Your task to perform on an android device: Search for Mexican restaurants on Maps Image 0: 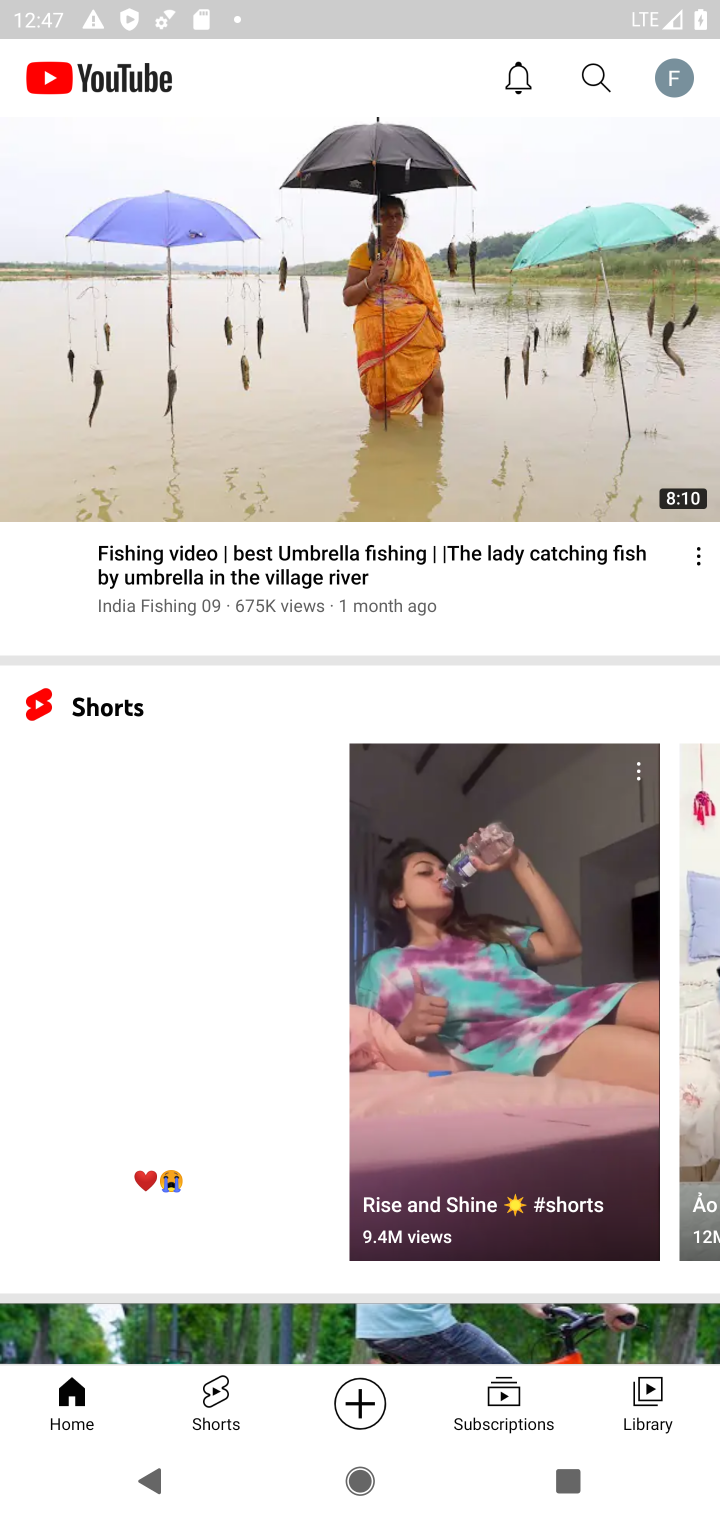
Step 0: press back button
Your task to perform on an android device: Search for Mexican restaurants on Maps Image 1: 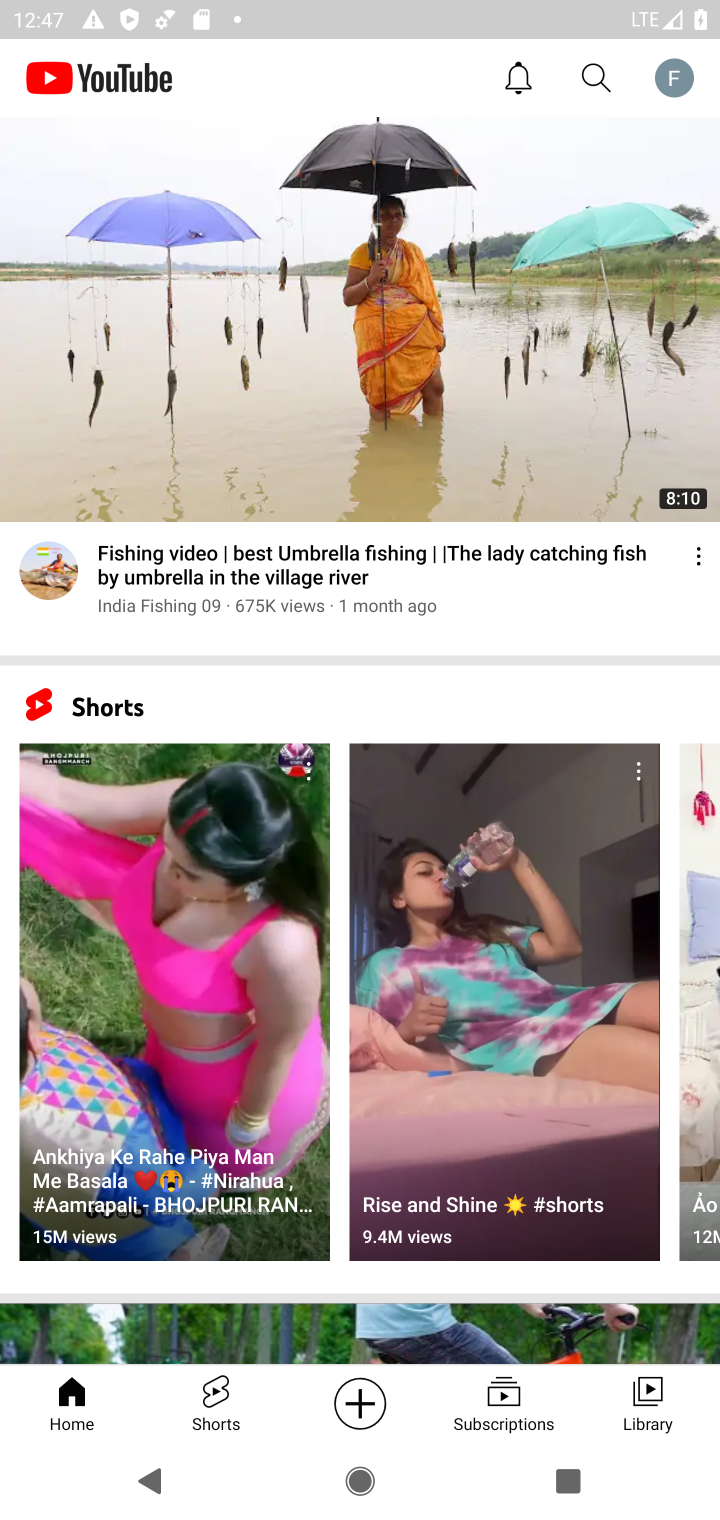
Step 1: press home button
Your task to perform on an android device: Search for Mexican restaurants on Maps Image 2: 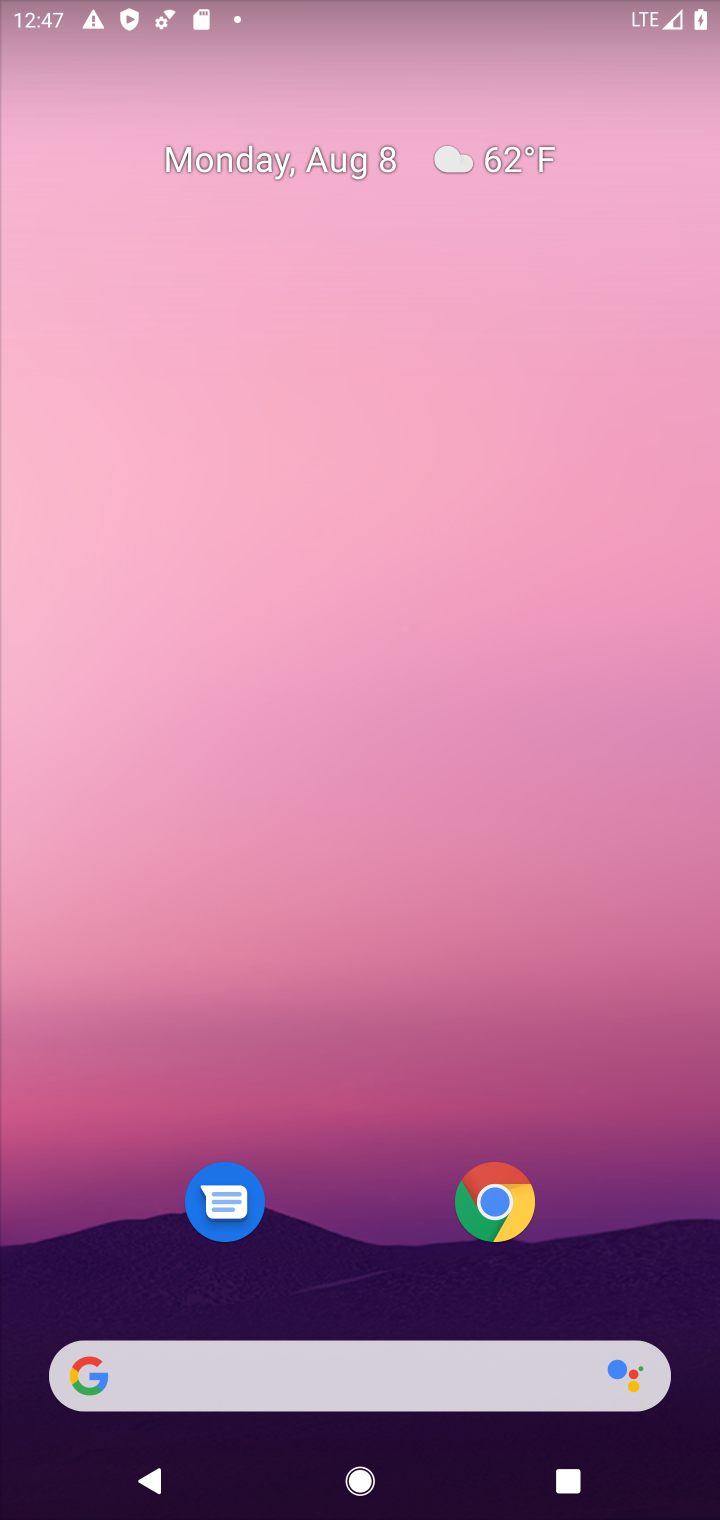
Step 2: drag from (331, 1043) to (331, 152)
Your task to perform on an android device: Search for Mexican restaurants on Maps Image 3: 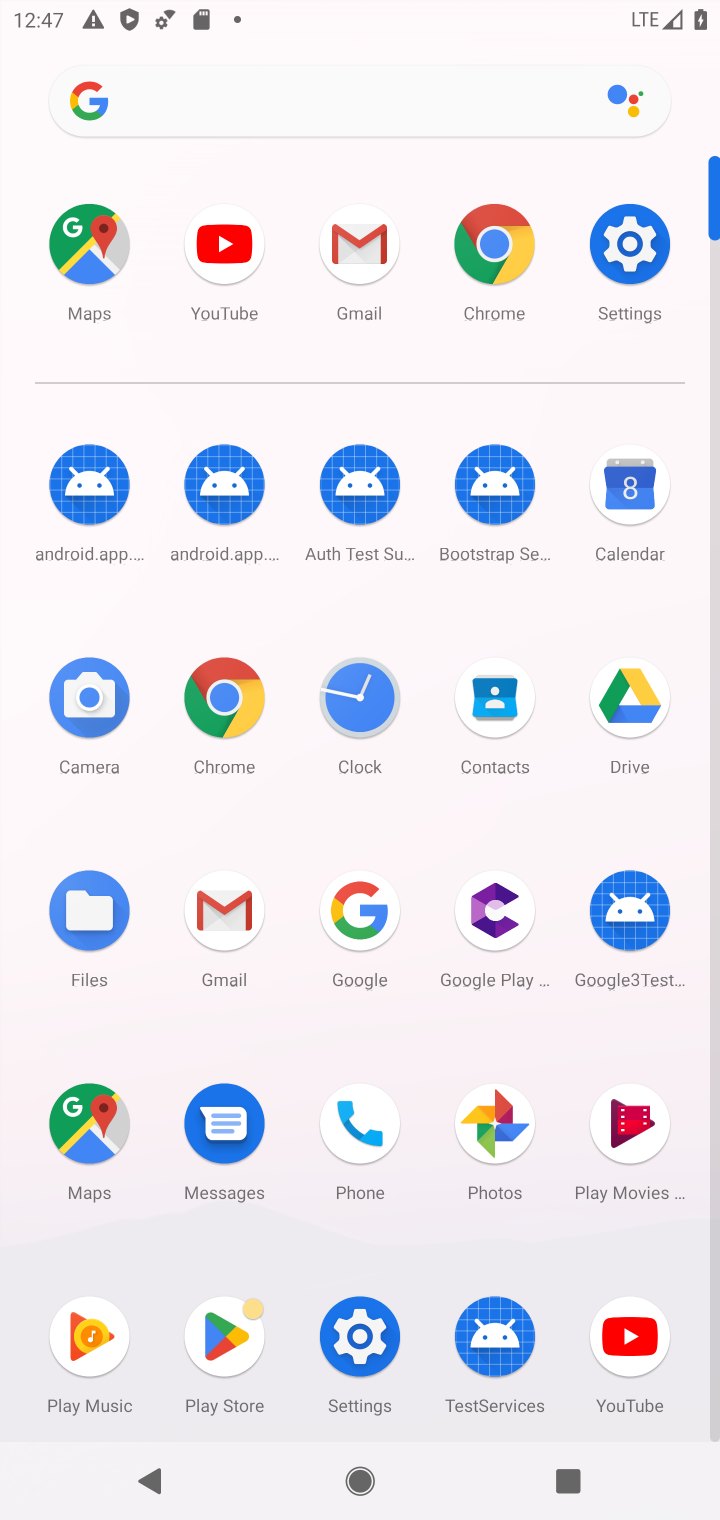
Step 3: click (90, 268)
Your task to perform on an android device: Search for Mexican restaurants on Maps Image 4: 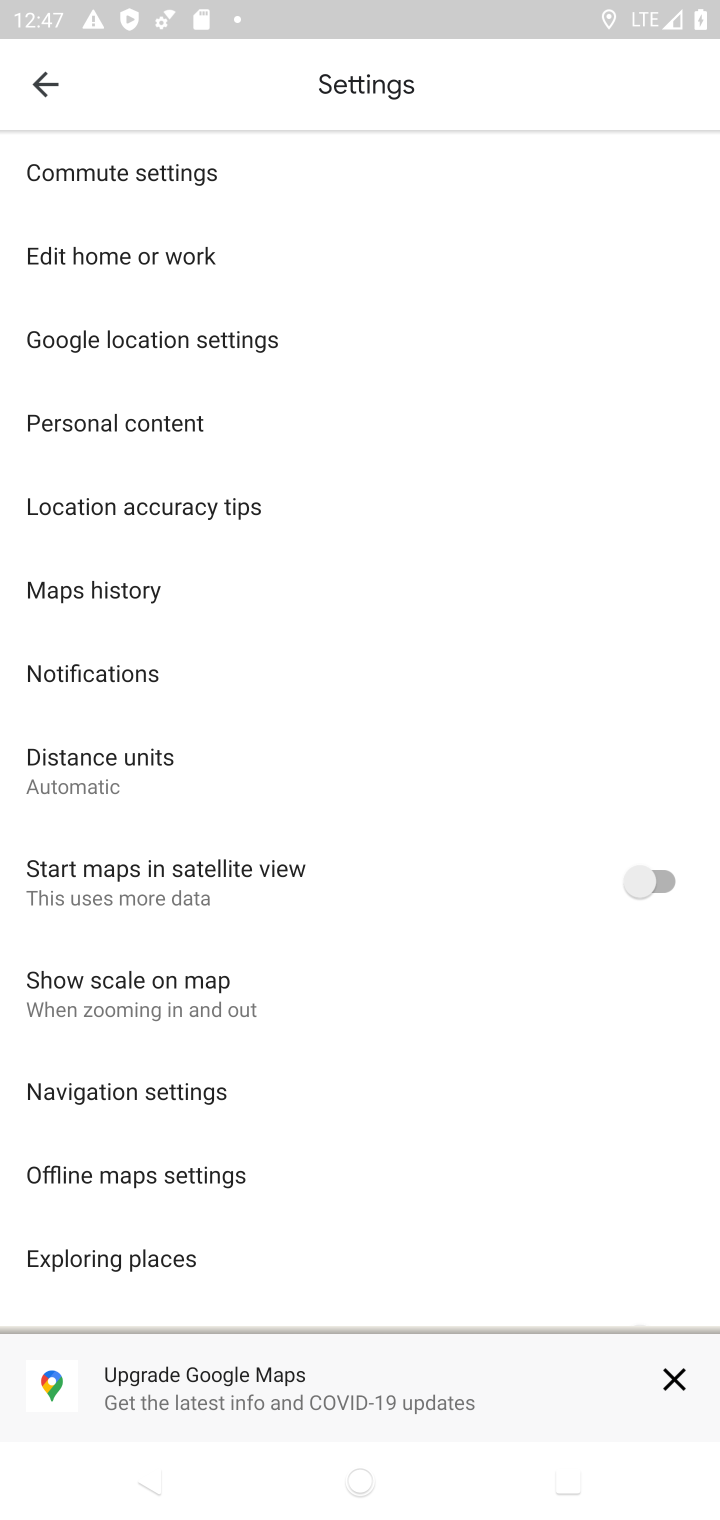
Step 4: click (39, 80)
Your task to perform on an android device: Search for Mexican restaurants on Maps Image 5: 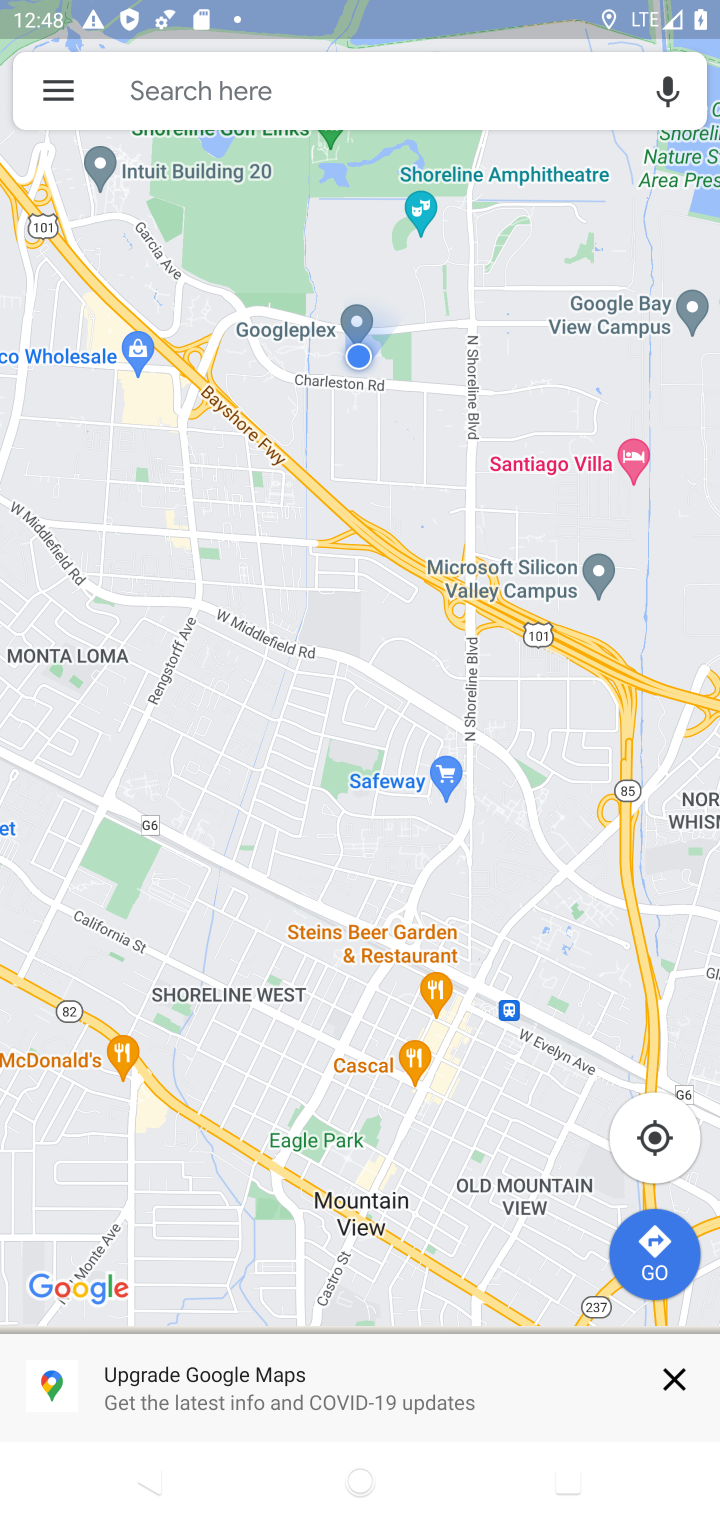
Step 5: click (218, 92)
Your task to perform on an android device: Search for Mexican restaurants on Maps Image 6: 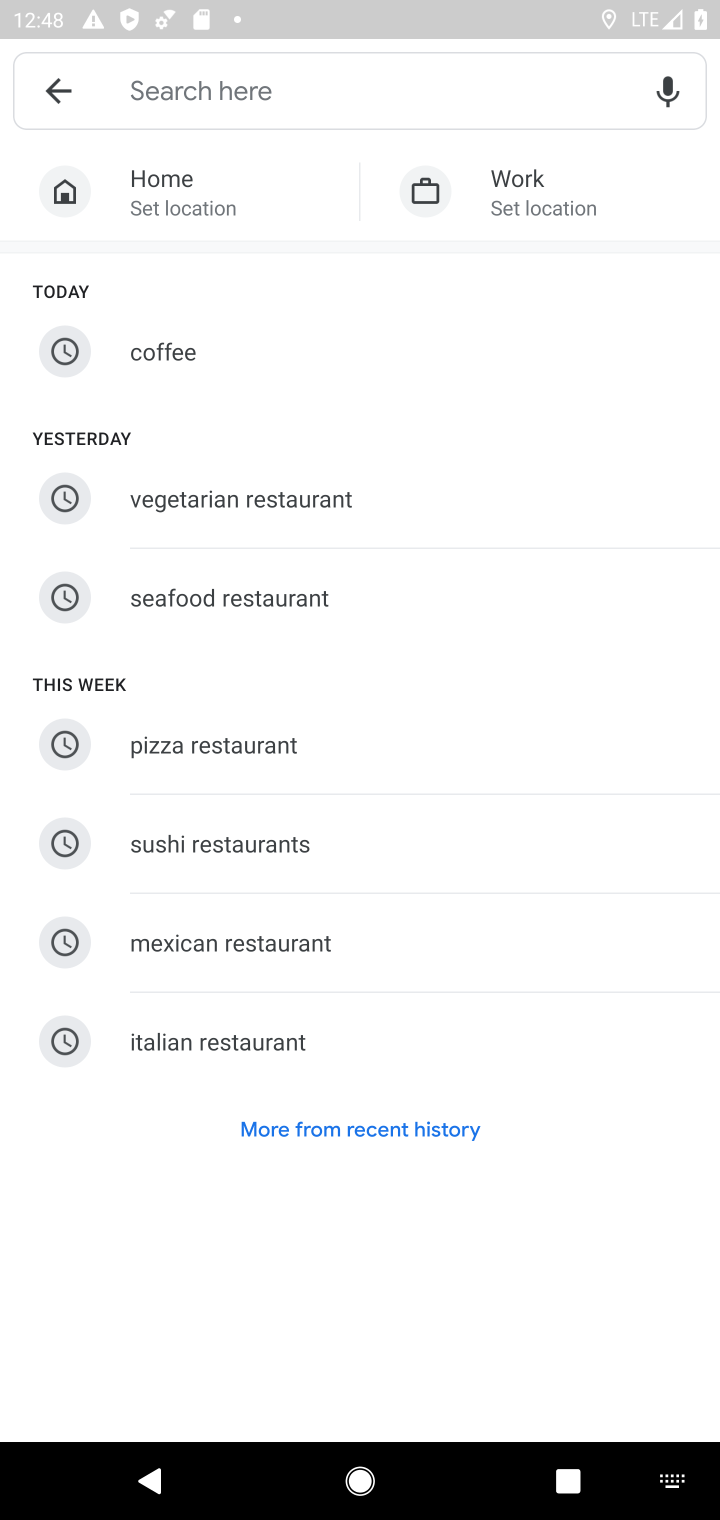
Step 6: type "Mexican restaurants "
Your task to perform on an android device: Search for Mexican restaurants on Maps Image 7: 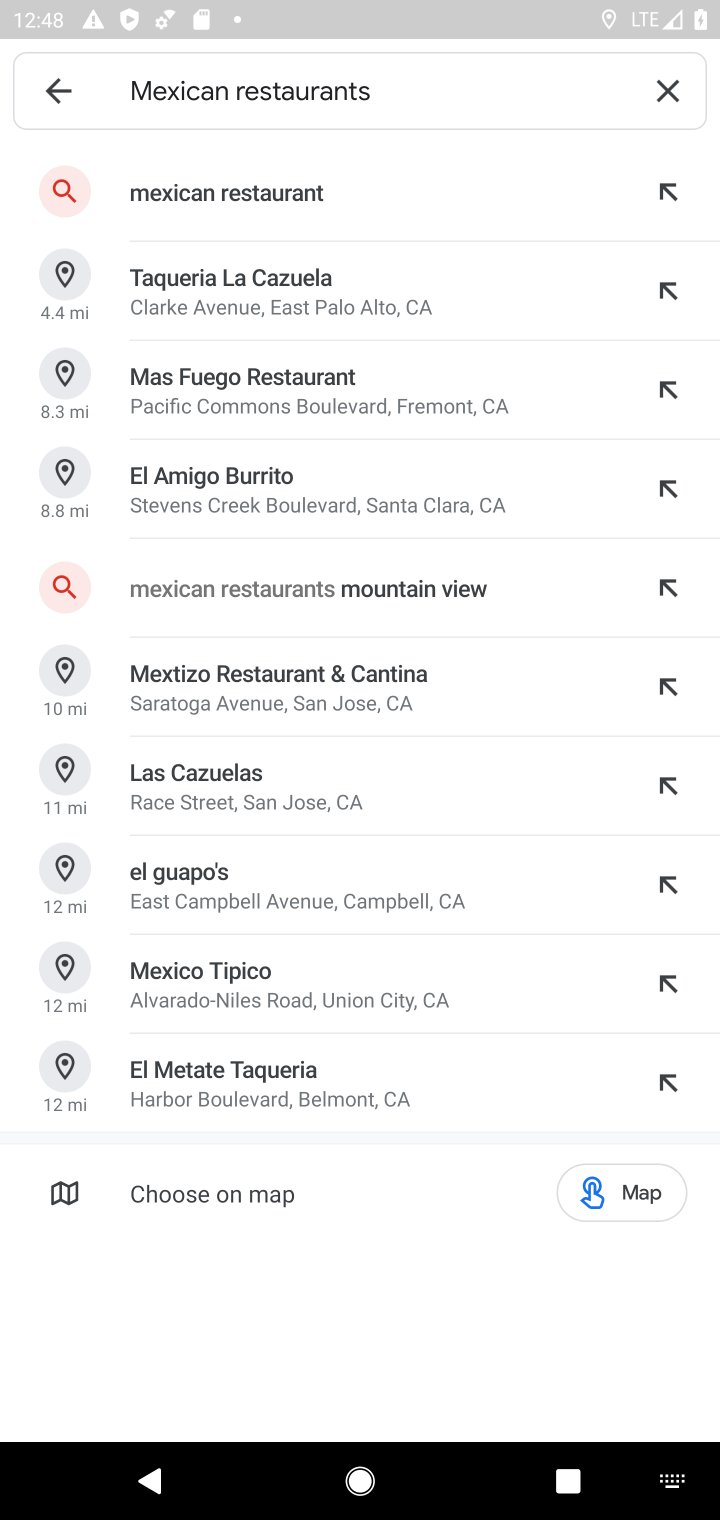
Step 7: click (236, 932)
Your task to perform on an android device: Search for Mexican restaurants on Maps Image 8: 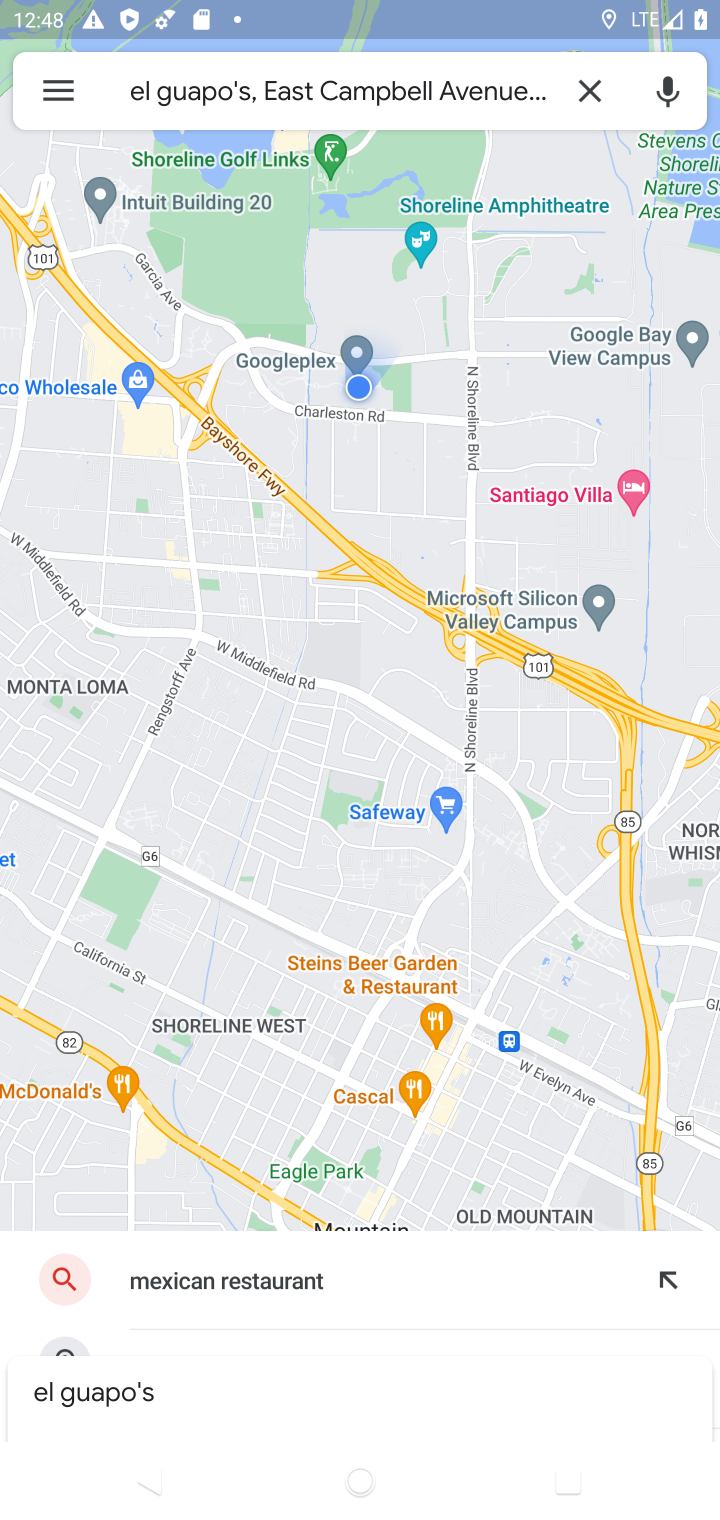
Step 8: click (264, 188)
Your task to perform on an android device: Search for Mexican restaurants on Maps Image 9: 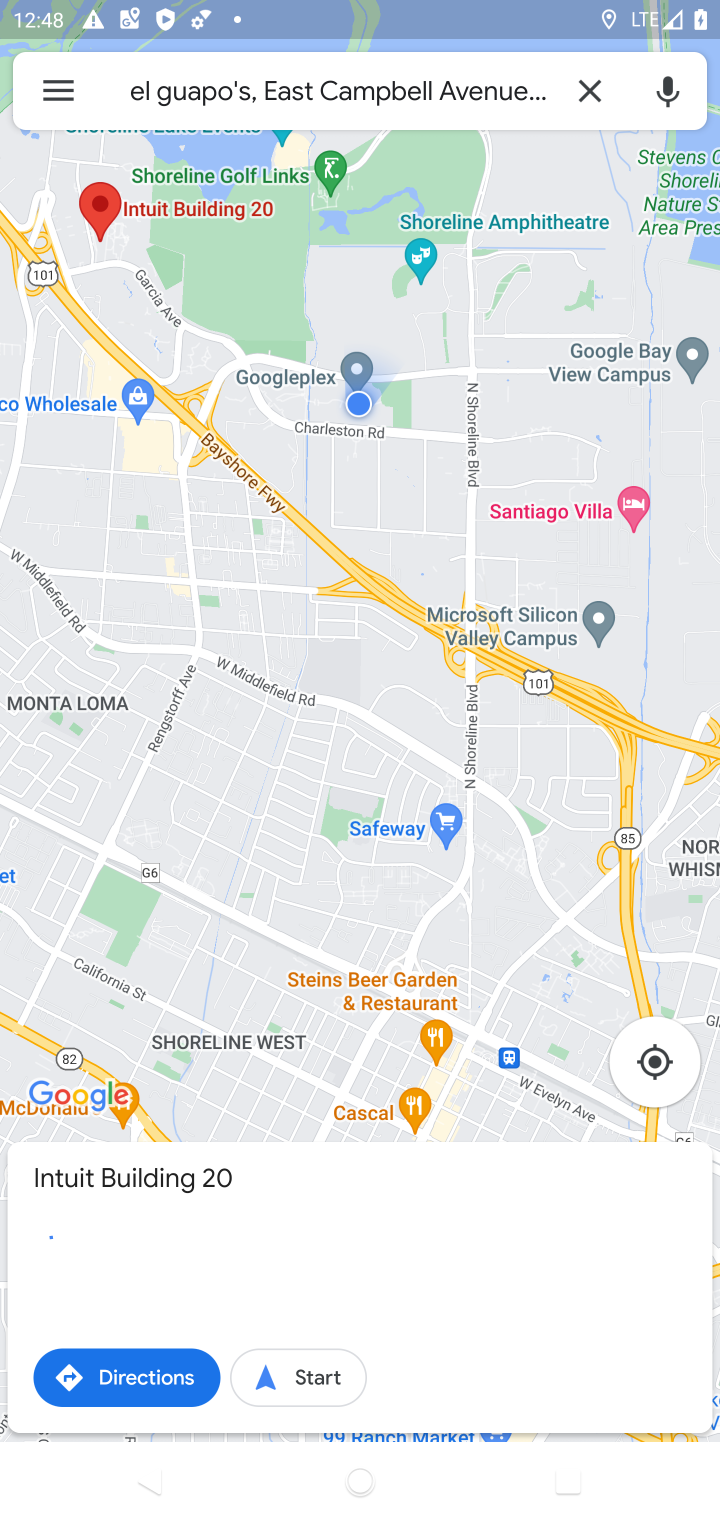
Step 9: click (585, 93)
Your task to perform on an android device: Search for Mexican restaurants on Maps Image 10: 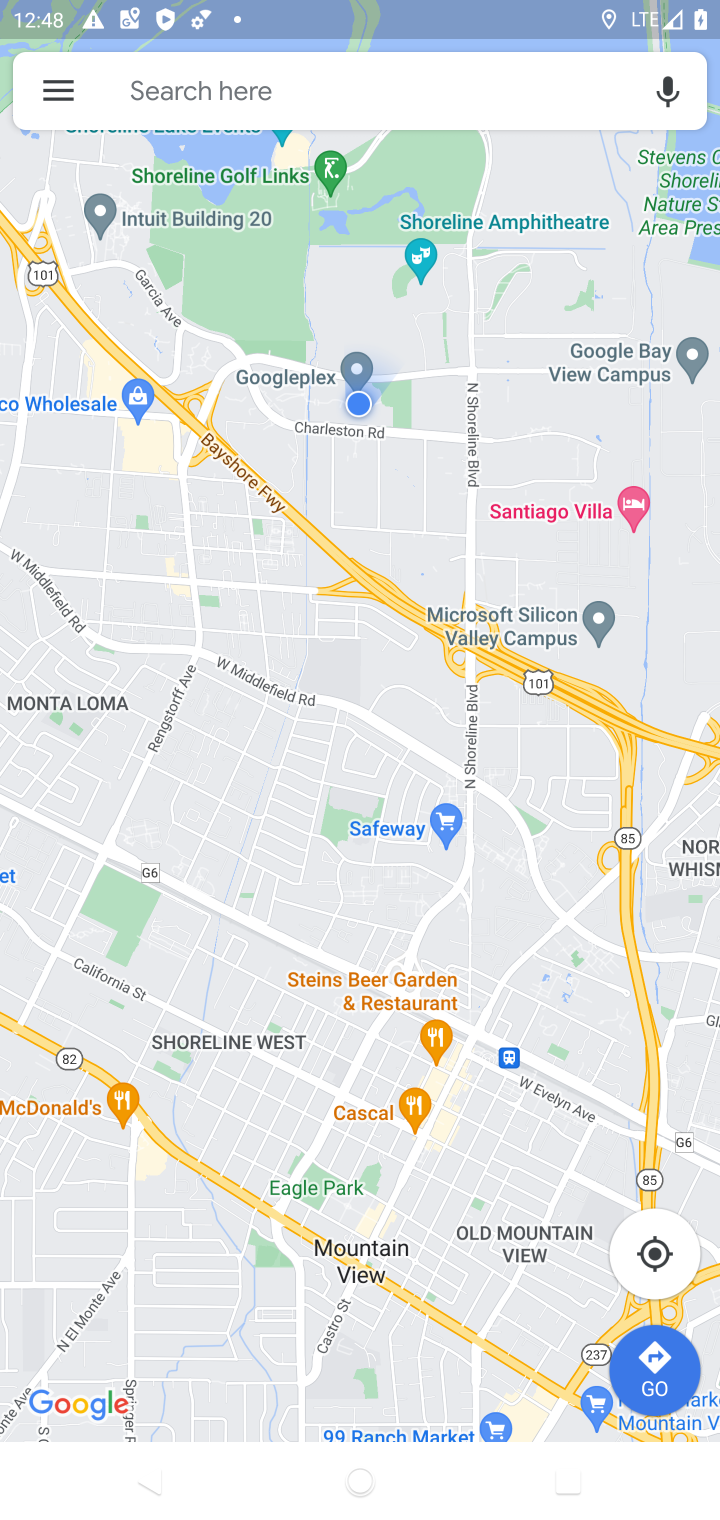
Step 10: click (245, 80)
Your task to perform on an android device: Search for Mexican restaurants on Maps Image 11: 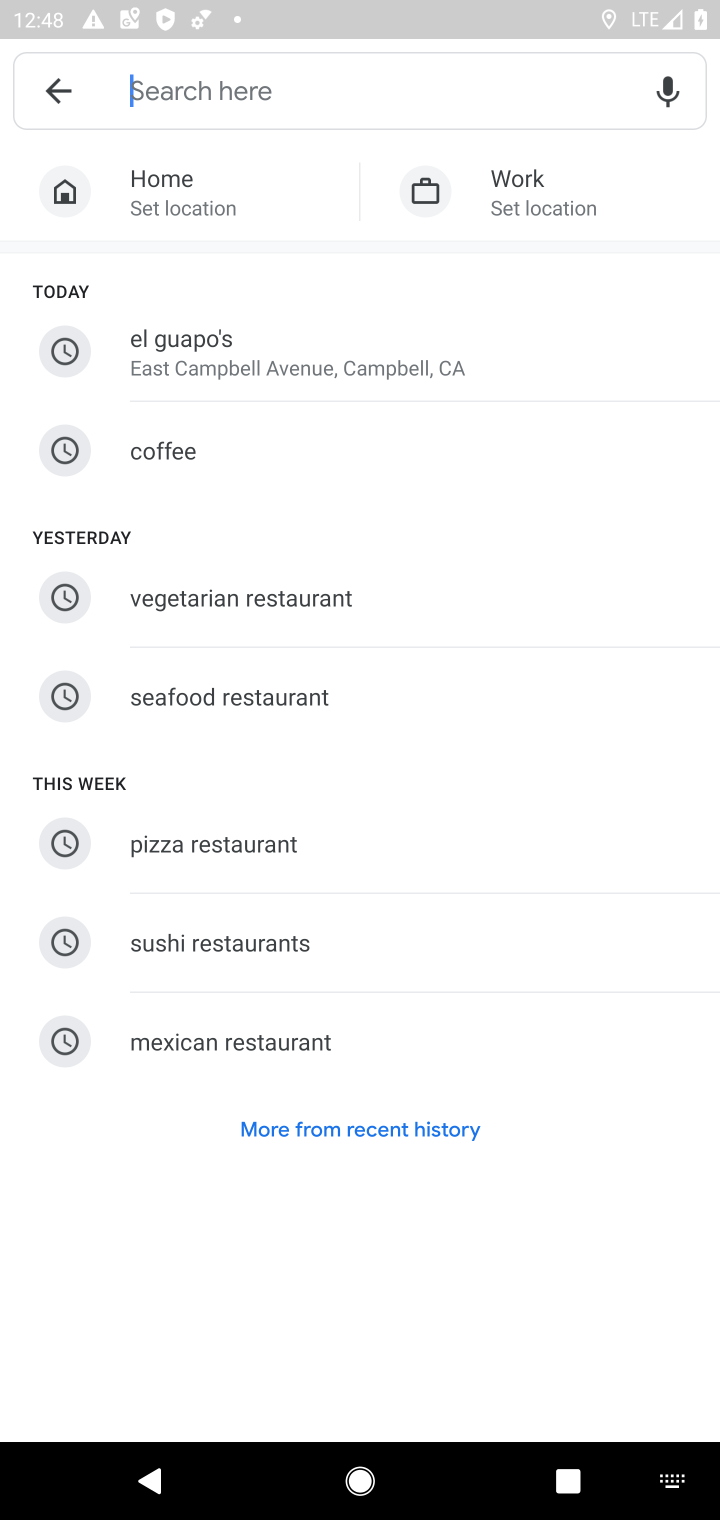
Step 11: click (43, 86)
Your task to perform on an android device: Search for Mexican restaurants on Maps Image 12: 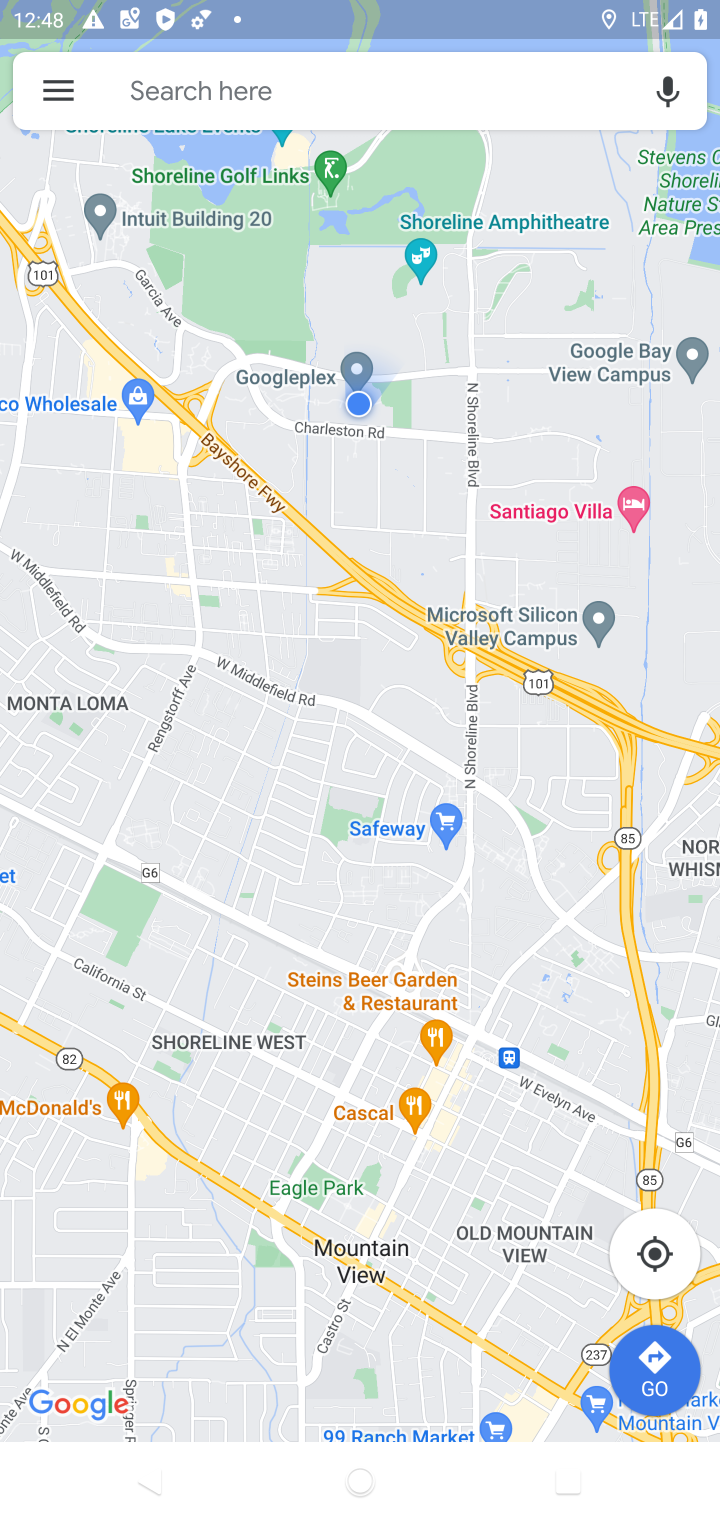
Step 12: click (231, 99)
Your task to perform on an android device: Search for Mexican restaurants on Maps Image 13: 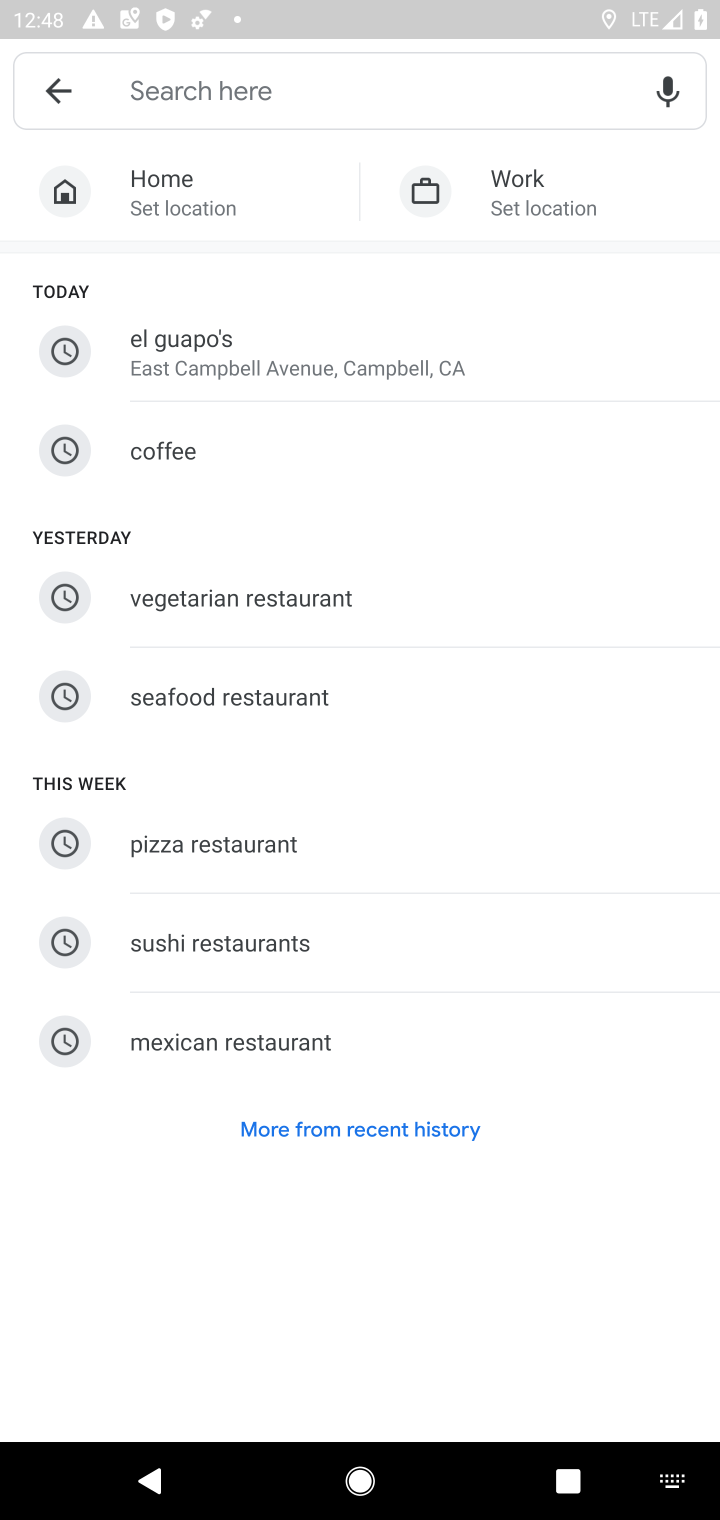
Step 13: type "Mexican restaurants"
Your task to perform on an android device: Search for Mexican restaurants on Maps Image 14: 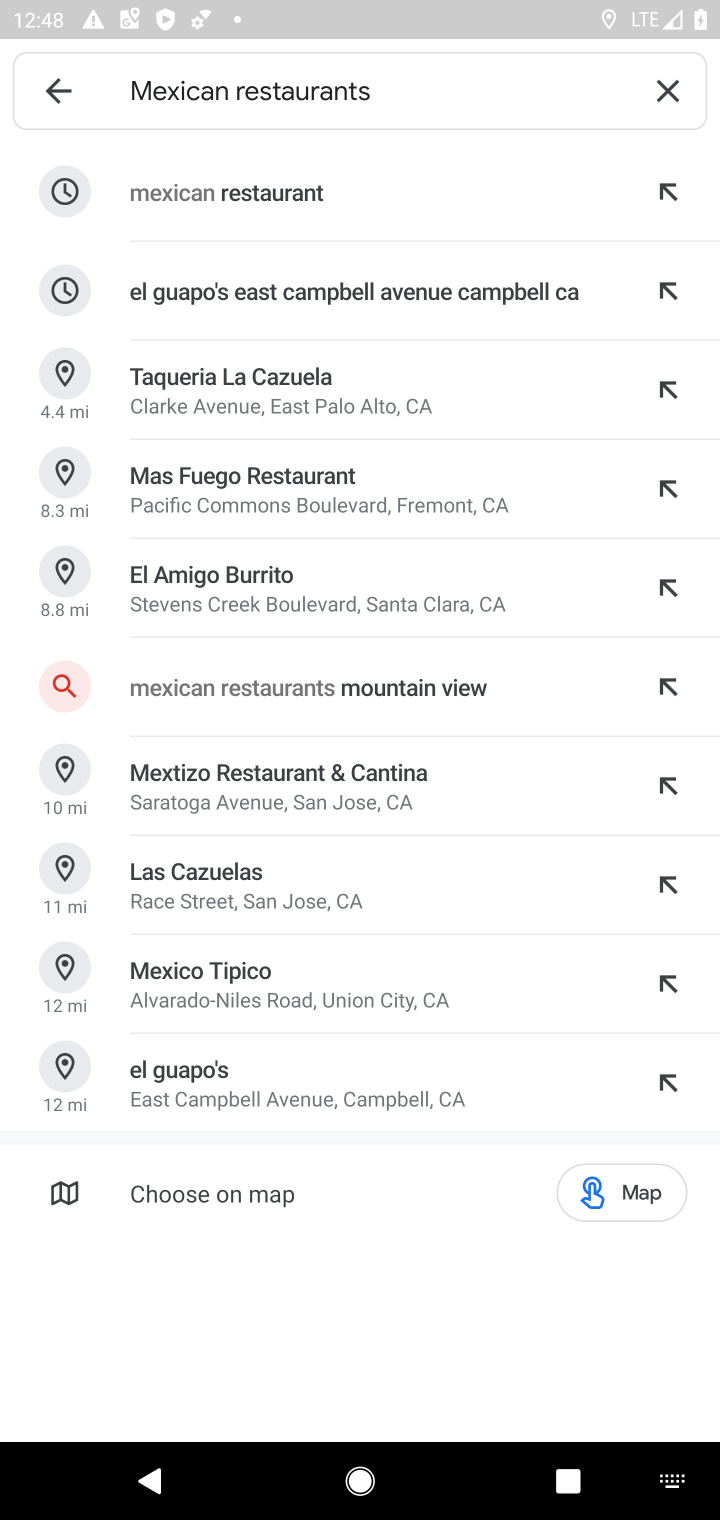
Step 14: click (228, 211)
Your task to perform on an android device: Search for Mexican restaurants on Maps Image 15: 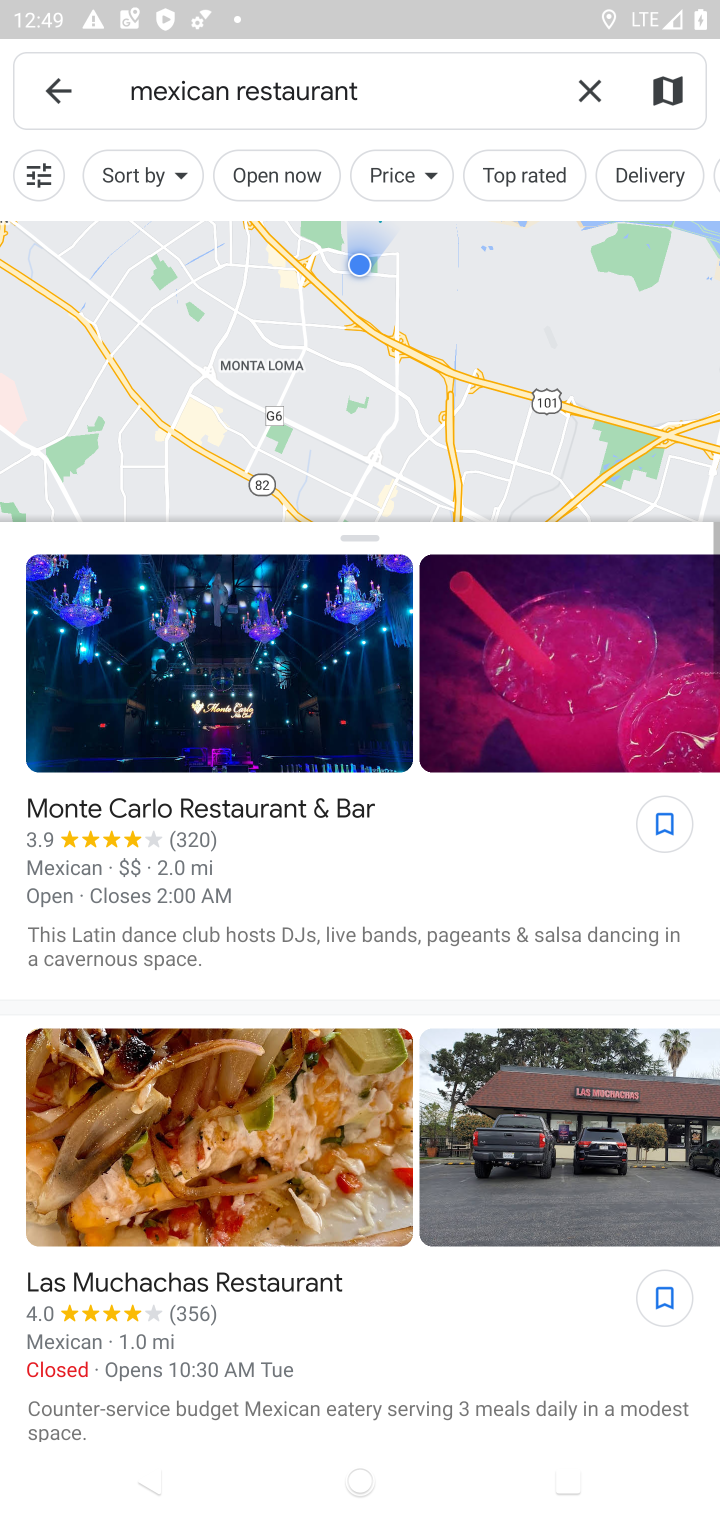
Step 15: task complete